Your task to perform on an android device: Go to privacy settings Image 0: 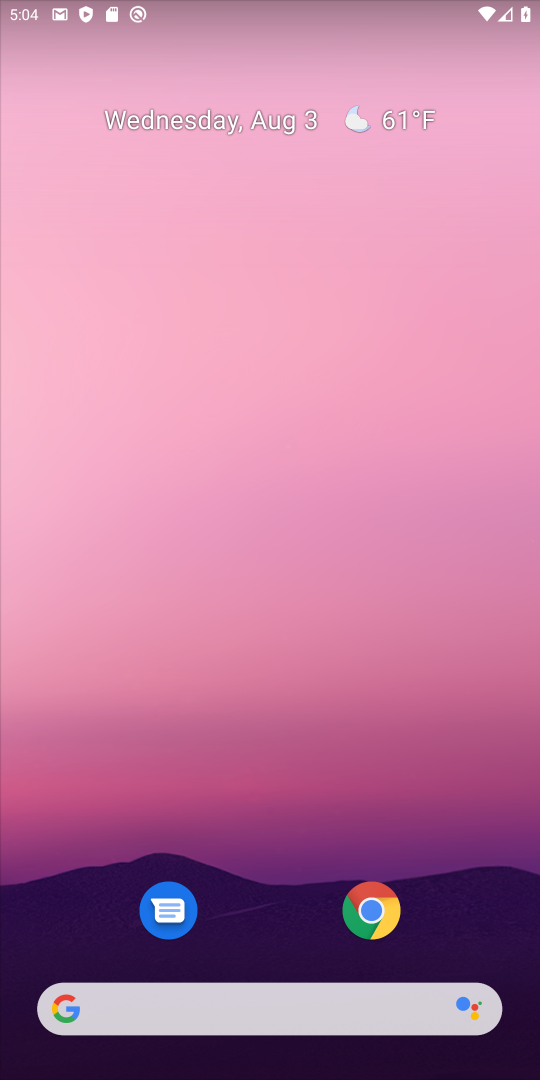
Step 0: press home button
Your task to perform on an android device: Go to privacy settings Image 1: 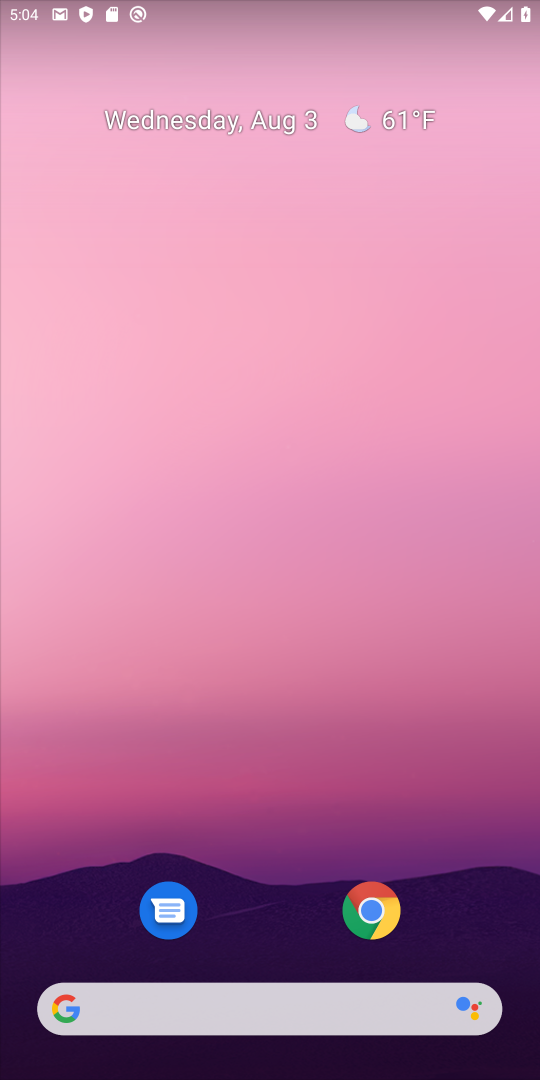
Step 1: drag from (291, 950) to (283, 359)
Your task to perform on an android device: Go to privacy settings Image 2: 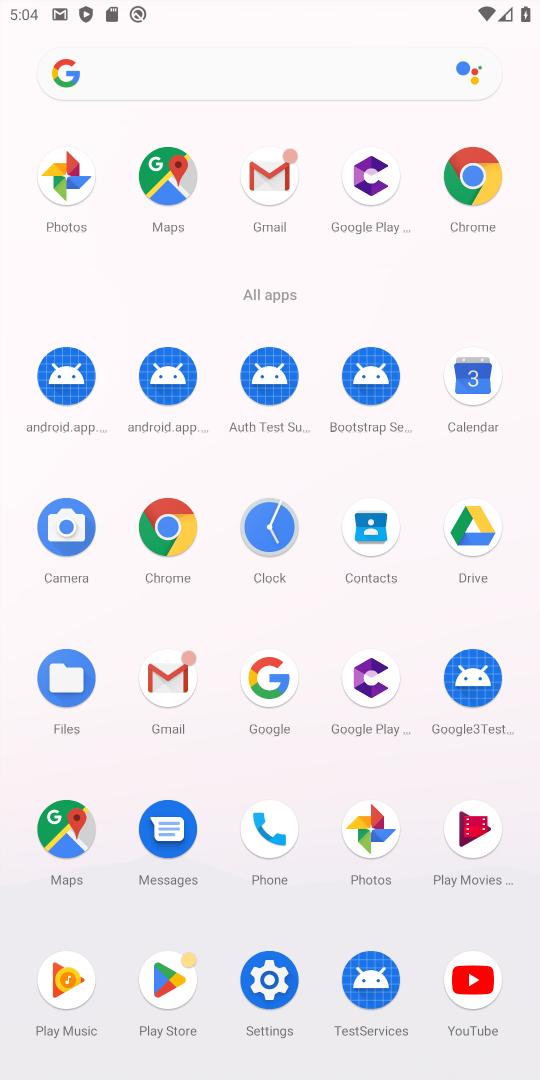
Step 2: click (255, 972)
Your task to perform on an android device: Go to privacy settings Image 3: 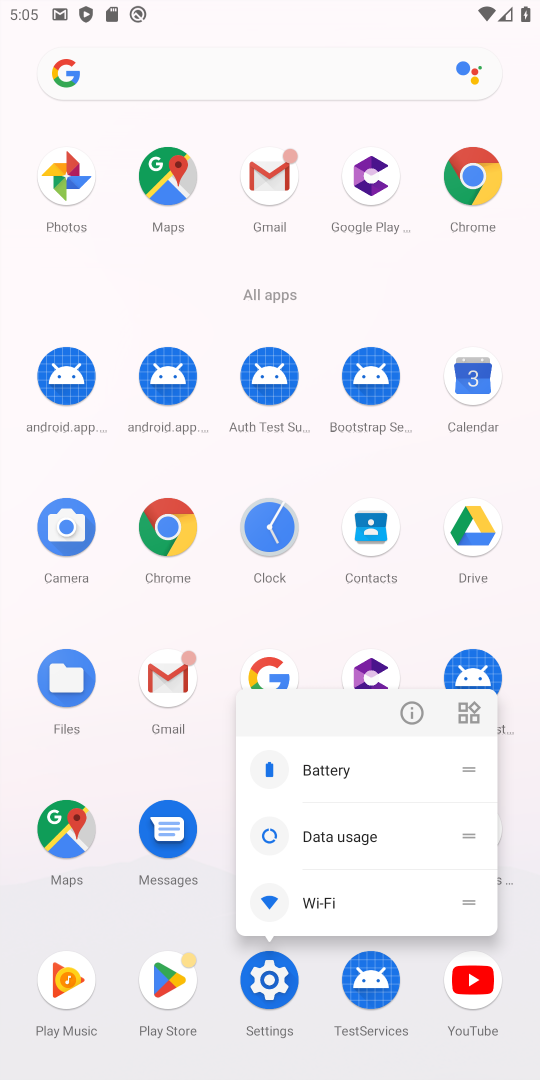
Step 3: click (271, 961)
Your task to perform on an android device: Go to privacy settings Image 4: 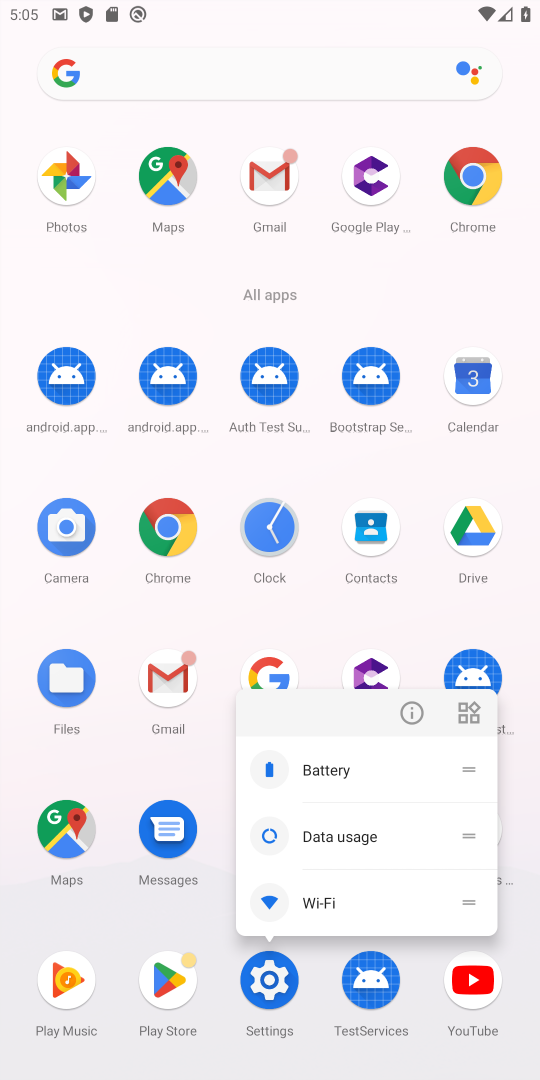
Step 4: click (271, 979)
Your task to perform on an android device: Go to privacy settings Image 5: 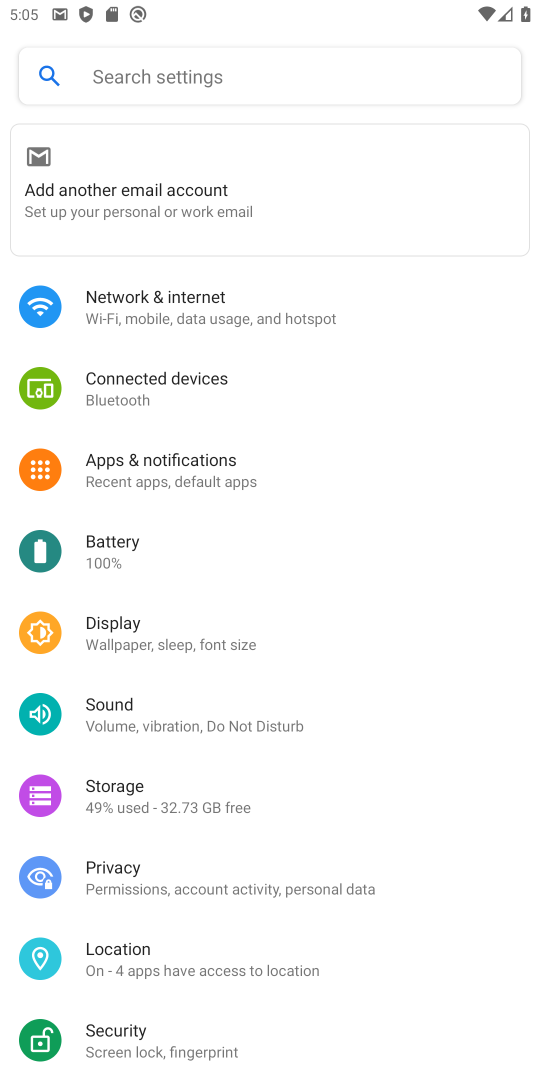
Step 5: click (132, 870)
Your task to perform on an android device: Go to privacy settings Image 6: 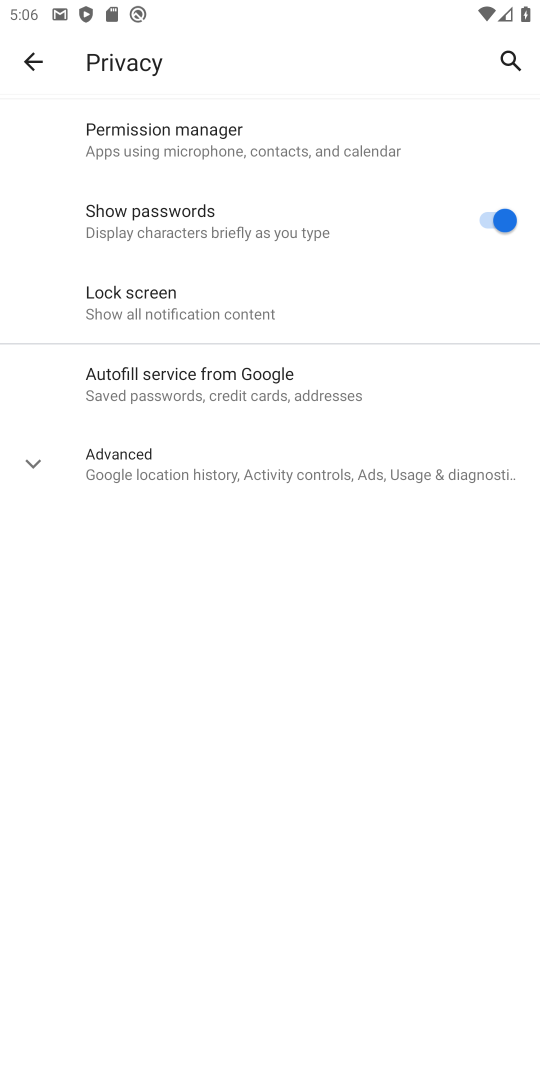
Step 6: task complete